Your task to perform on an android device: open a new tab in the chrome app Image 0: 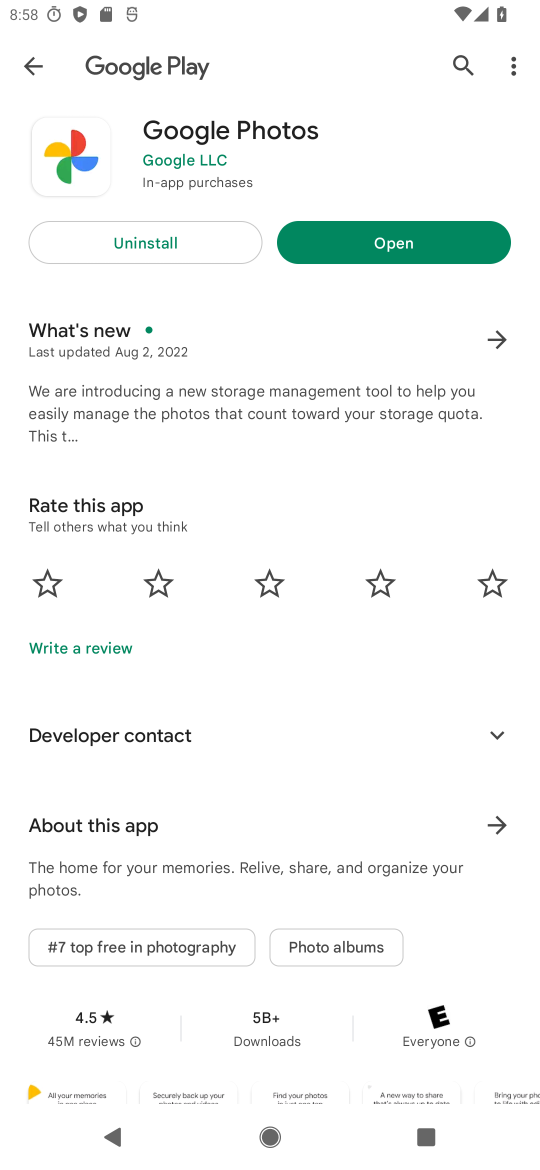
Step 0: press home button
Your task to perform on an android device: open a new tab in the chrome app Image 1: 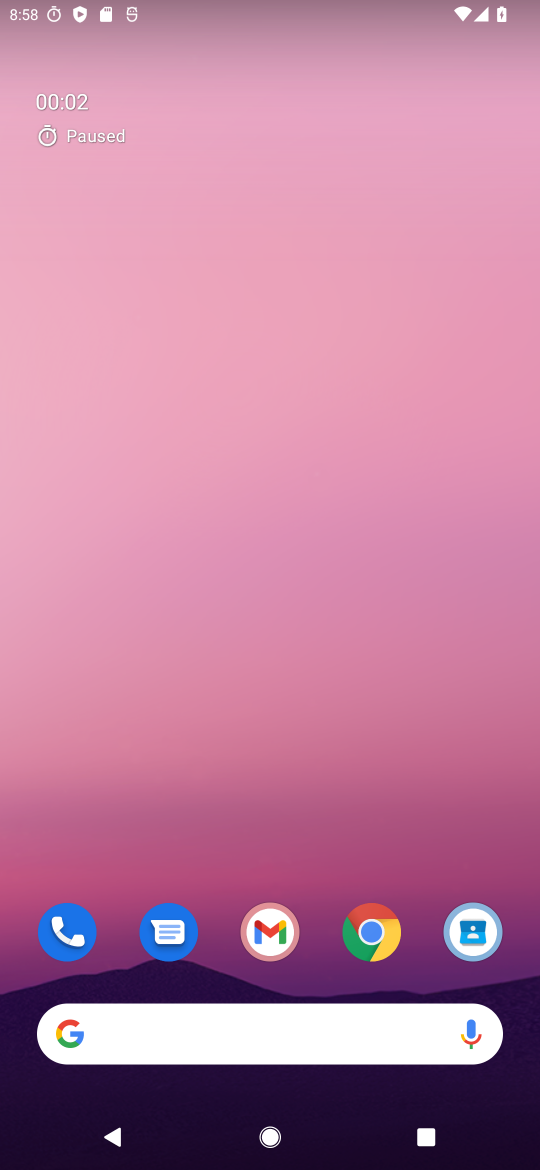
Step 1: click (378, 937)
Your task to perform on an android device: open a new tab in the chrome app Image 2: 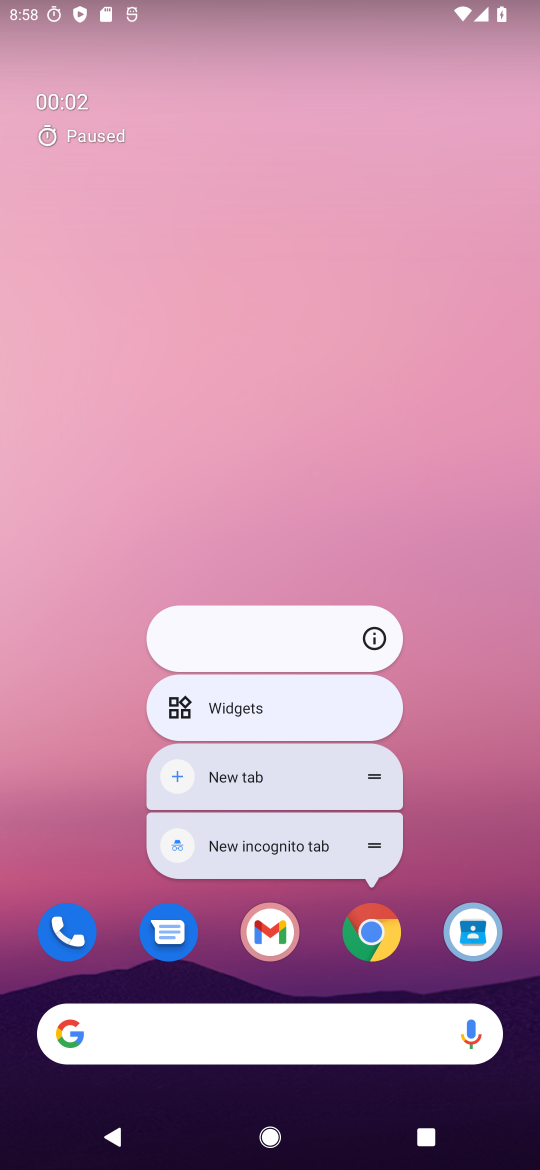
Step 2: click (371, 934)
Your task to perform on an android device: open a new tab in the chrome app Image 3: 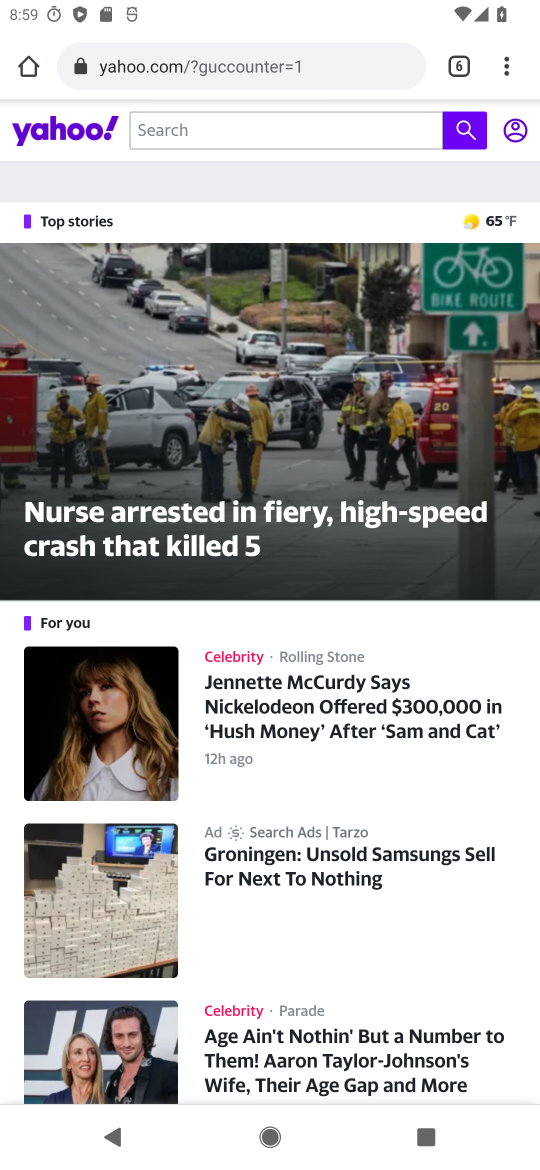
Step 3: task complete